Your task to perform on an android device: empty trash in google photos Image 0: 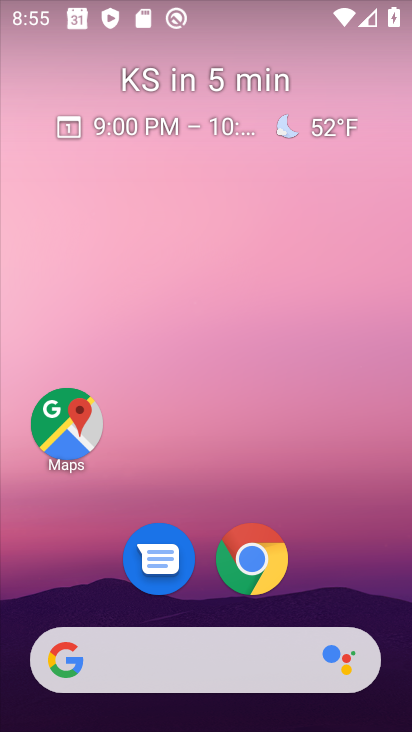
Step 0: drag from (325, 542) to (275, 18)
Your task to perform on an android device: empty trash in google photos Image 1: 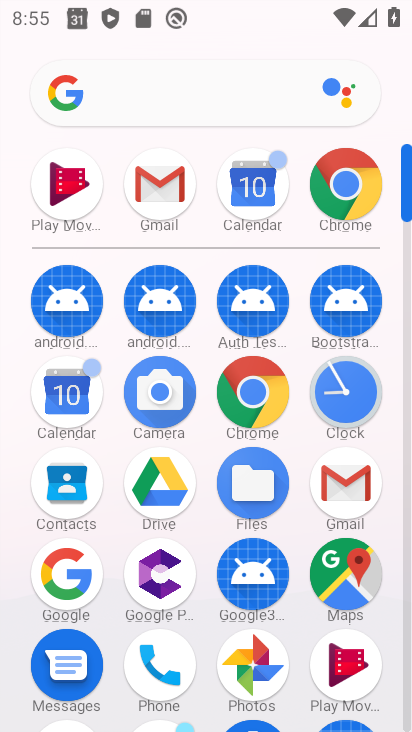
Step 1: click (251, 661)
Your task to perform on an android device: empty trash in google photos Image 2: 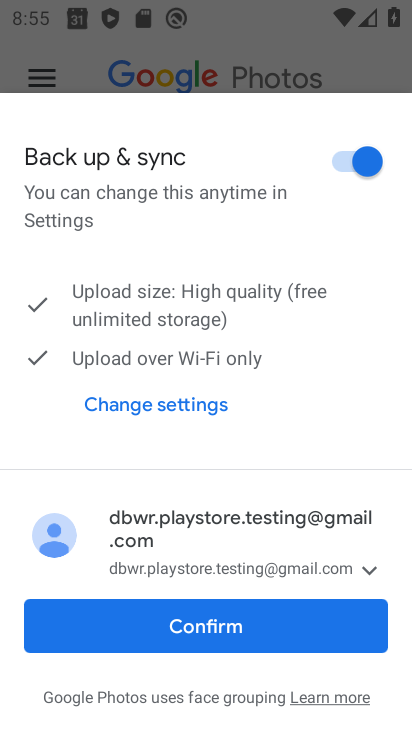
Step 2: click (162, 621)
Your task to perform on an android device: empty trash in google photos Image 3: 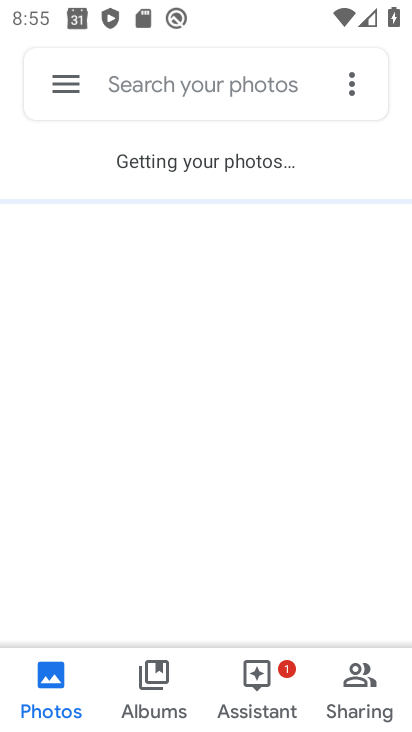
Step 3: click (355, 677)
Your task to perform on an android device: empty trash in google photos Image 4: 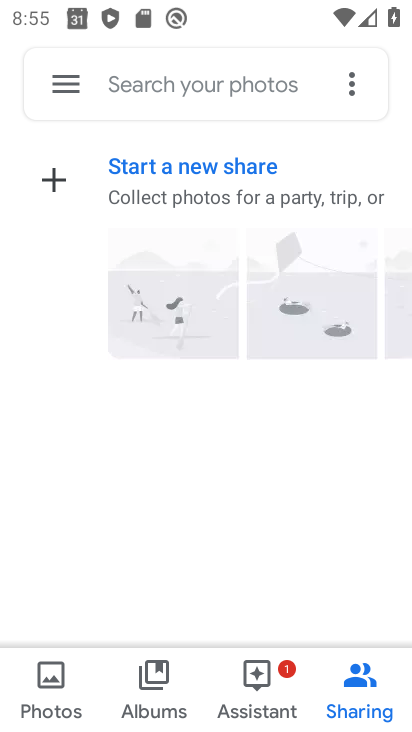
Step 4: click (250, 678)
Your task to perform on an android device: empty trash in google photos Image 5: 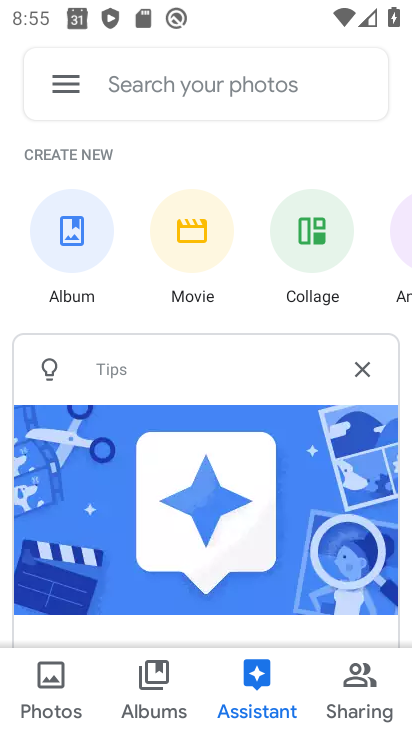
Step 5: drag from (234, 543) to (262, 148)
Your task to perform on an android device: empty trash in google photos Image 6: 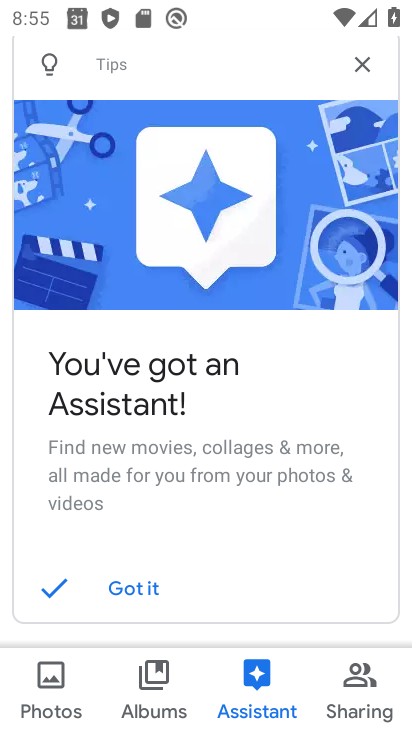
Step 6: drag from (264, 185) to (258, 605)
Your task to perform on an android device: empty trash in google photos Image 7: 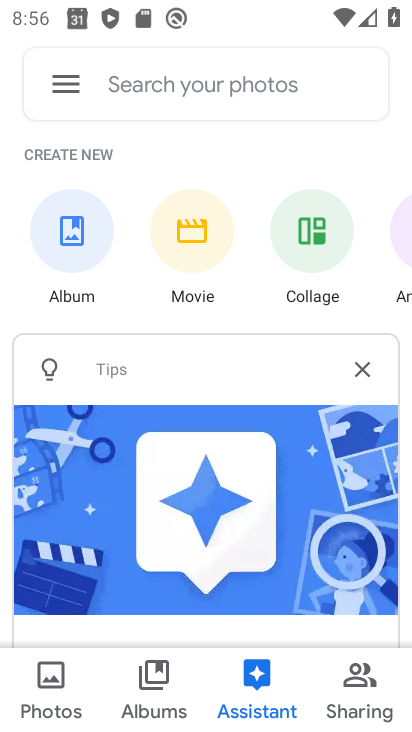
Step 7: click (347, 692)
Your task to perform on an android device: empty trash in google photos Image 8: 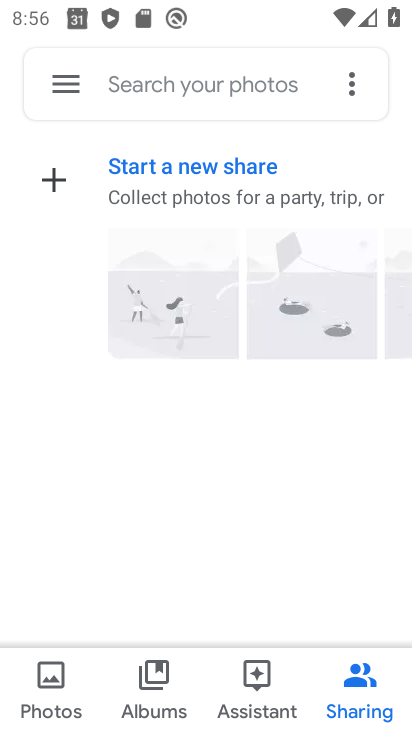
Step 8: click (59, 84)
Your task to perform on an android device: empty trash in google photos Image 9: 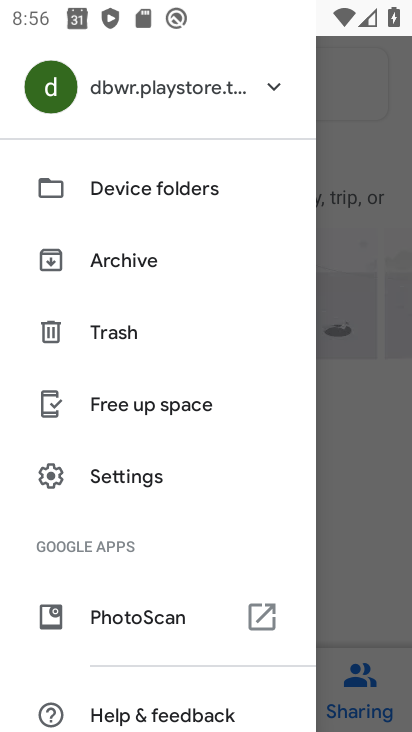
Step 9: click (138, 330)
Your task to perform on an android device: empty trash in google photos Image 10: 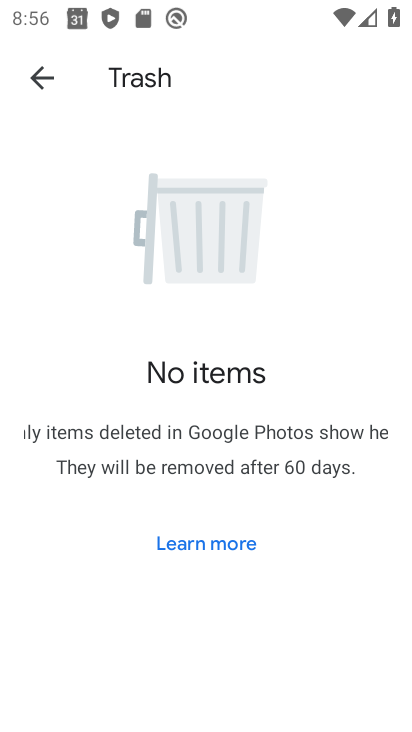
Step 10: task complete